Your task to perform on an android device: Open my contact list Image 0: 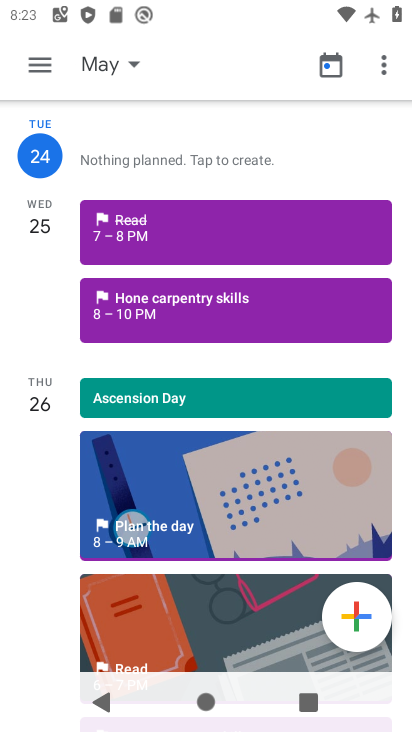
Step 0: press home button
Your task to perform on an android device: Open my contact list Image 1: 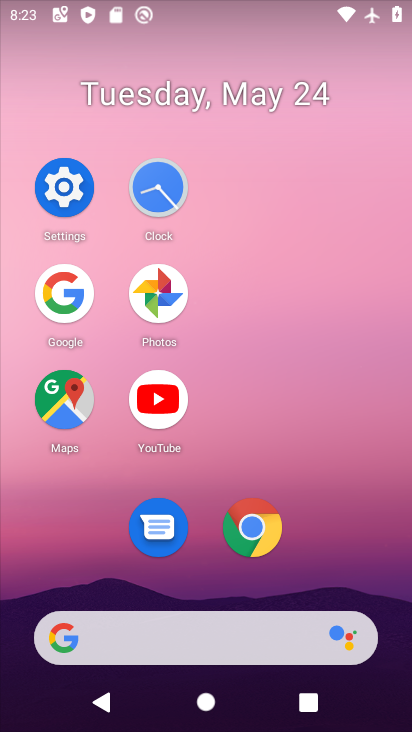
Step 1: drag from (342, 355) to (351, 167)
Your task to perform on an android device: Open my contact list Image 2: 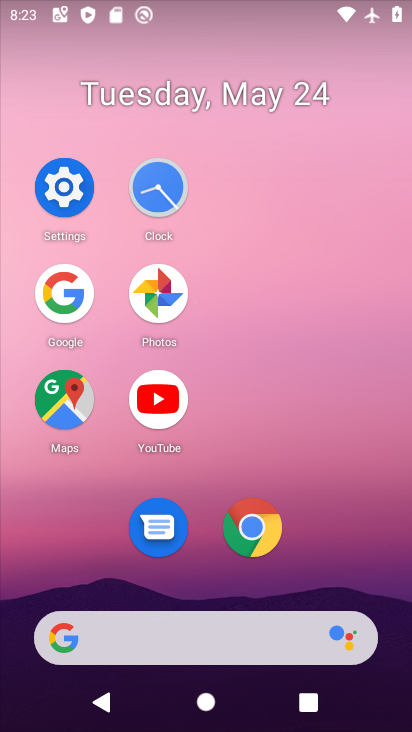
Step 2: drag from (279, 575) to (320, 171)
Your task to perform on an android device: Open my contact list Image 3: 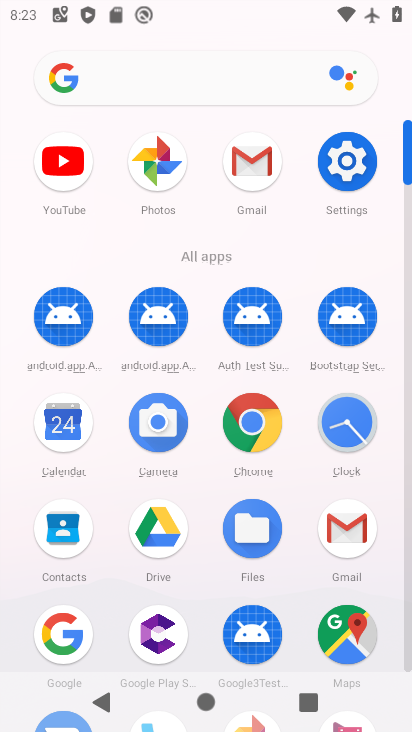
Step 3: click (70, 533)
Your task to perform on an android device: Open my contact list Image 4: 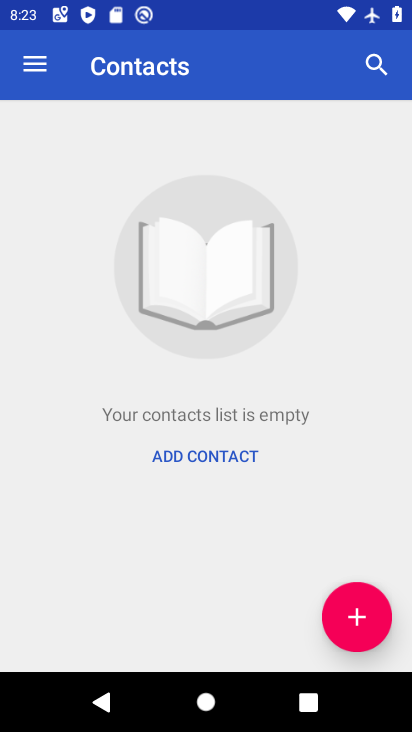
Step 4: task complete